Your task to perform on an android device: uninstall "Clock" Image 0: 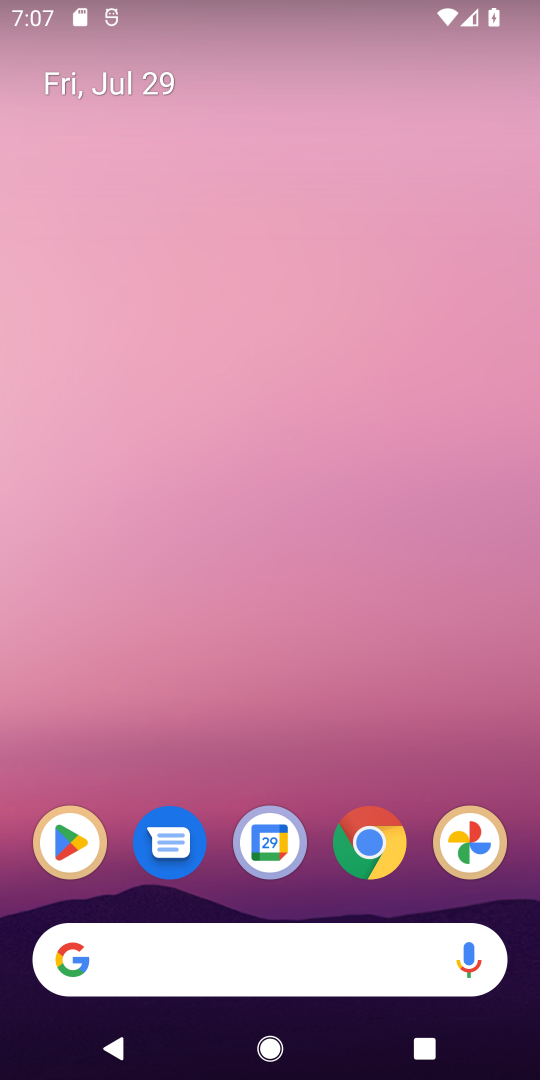
Step 0: drag from (291, 1012) to (286, 317)
Your task to perform on an android device: uninstall "Clock" Image 1: 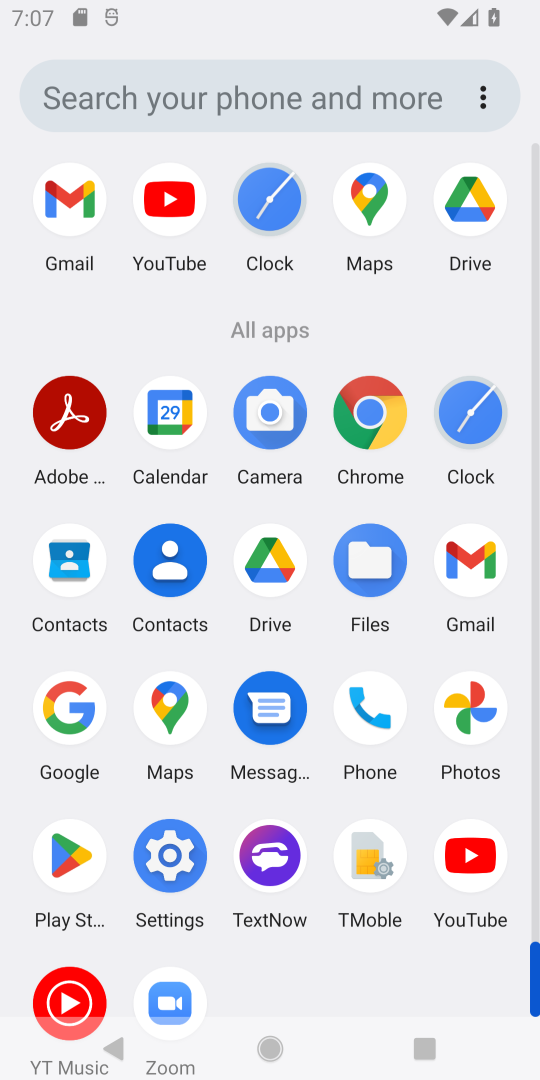
Step 1: drag from (343, 515) to (343, 358)
Your task to perform on an android device: uninstall "Clock" Image 2: 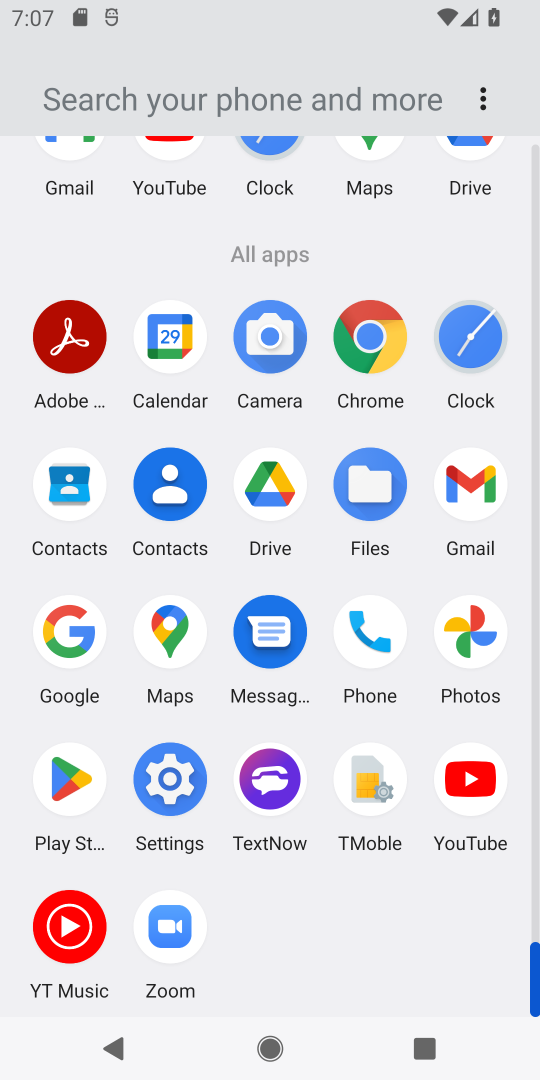
Step 2: drag from (294, 456) to (294, 897)
Your task to perform on an android device: uninstall "Clock" Image 3: 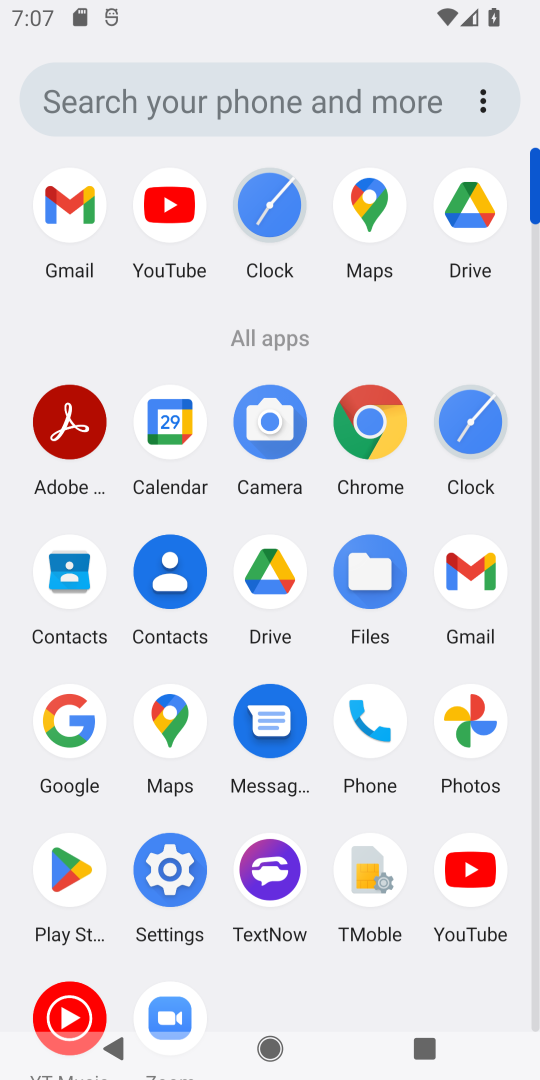
Step 3: drag from (320, 520) to (317, 851)
Your task to perform on an android device: uninstall "Clock" Image 4: 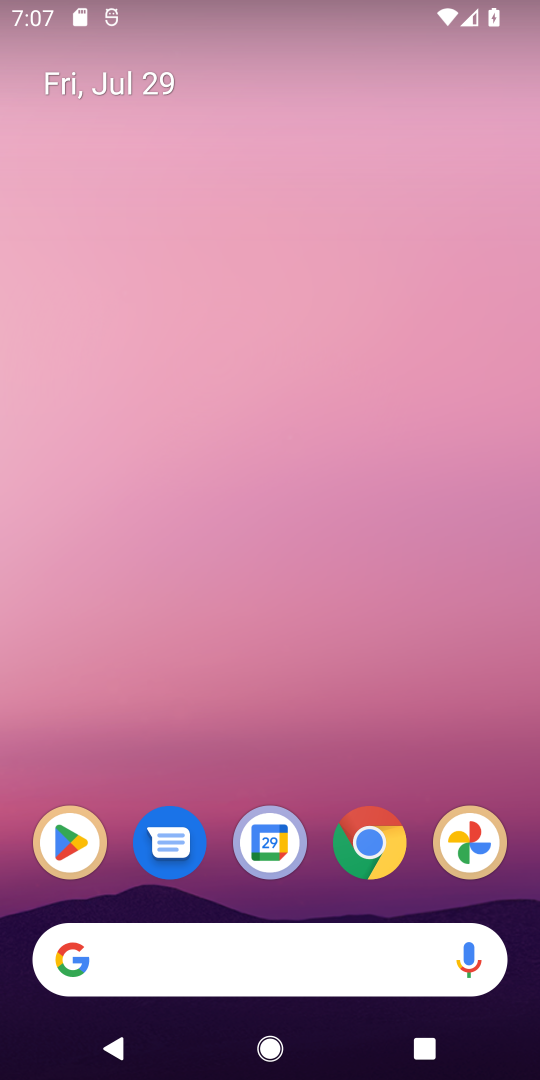
Step 4: drag from (302, 980) to (260, 375)
Your task to perform on an android device: uninstall "Clock" Image 5: 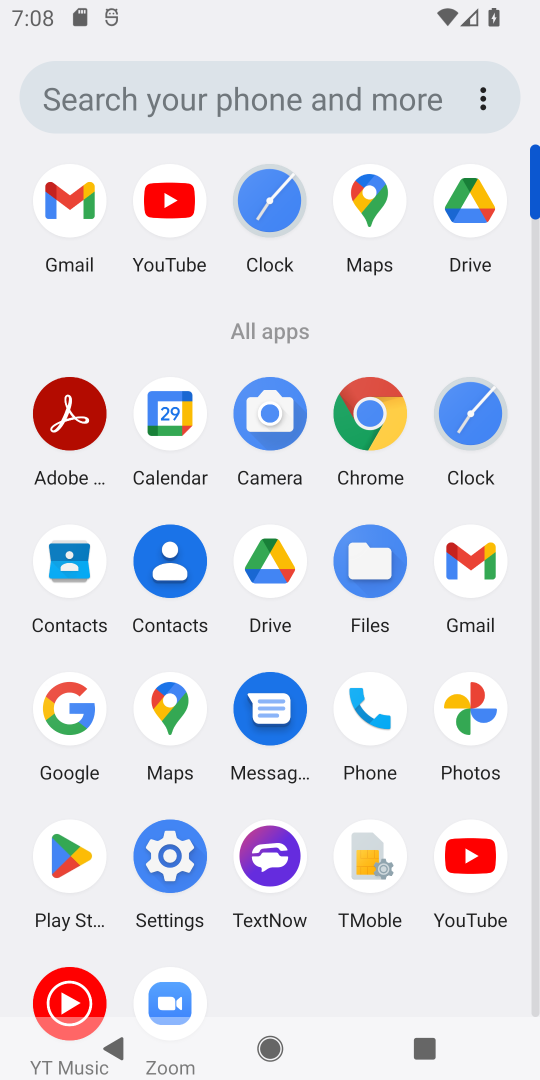
Step 5: click (73, 834)
Your task to perform on an android device: uninstall "Clock" Image 6: 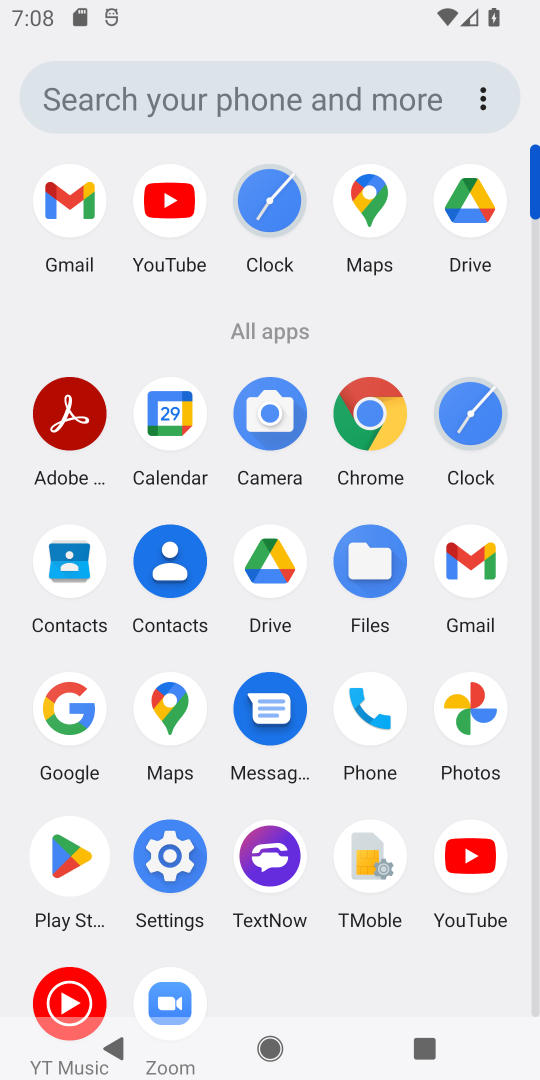
Step 6: click (72, 832)
Your task to perform on an android device: uninstall "Clock" Image 7: 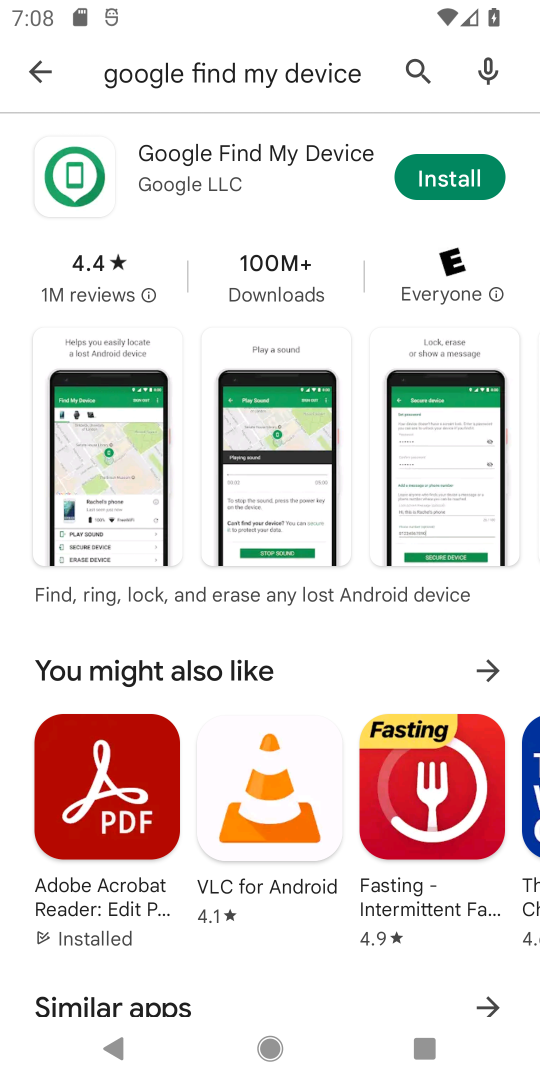
Step 7: click (49, 87)
Your task to perform on an android device: uninstall "Clock" Image 8: 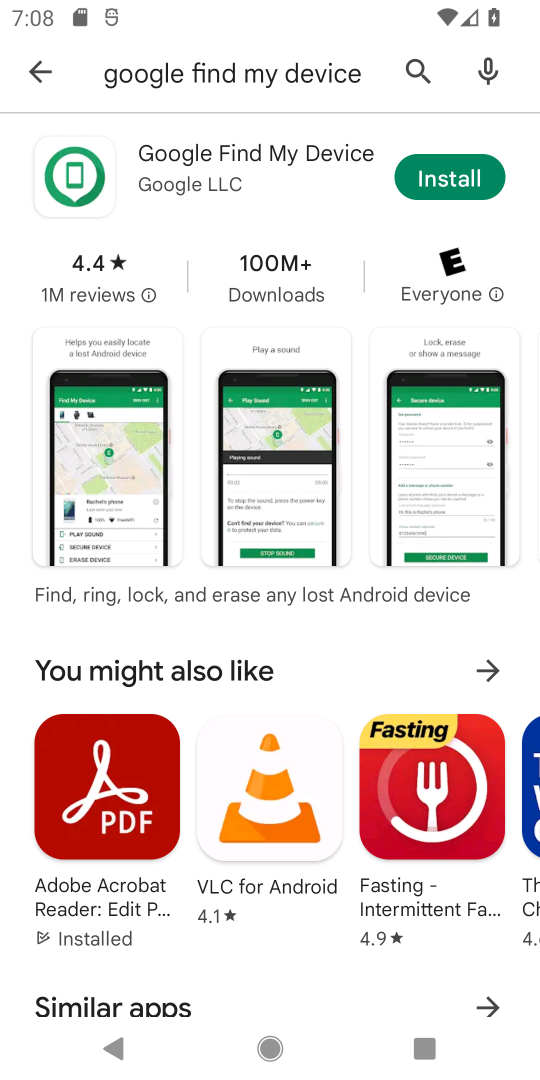
Step 8: click (28, 67)
Your task to perform on an android device: uninstall "Clock" Image 9: 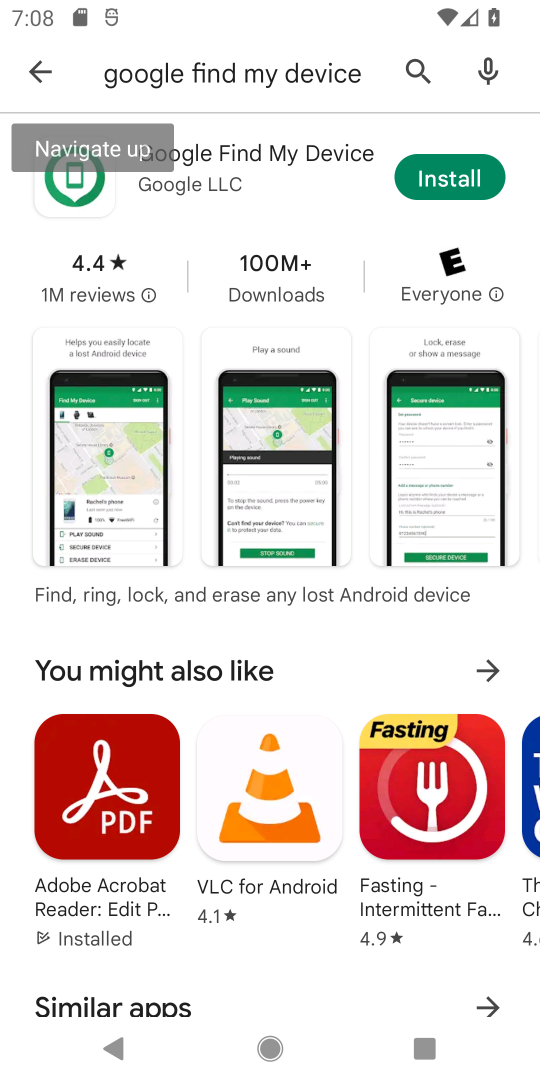
Step 9: click (45, 68)
Your task to perform on an android device: uninstall "Clock" Image 10: 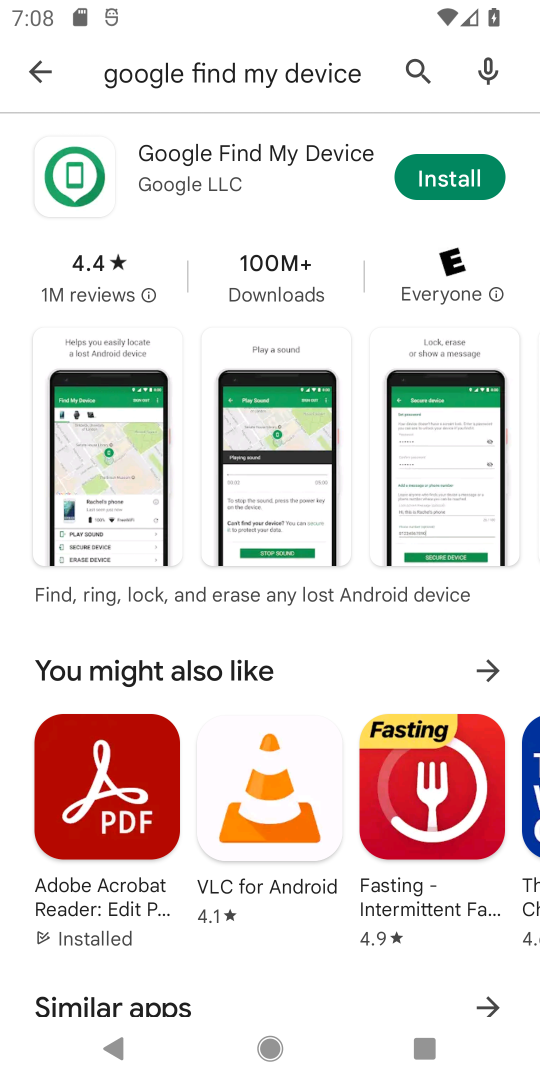
Step 10: press back button
Your task to perform on an android device: uninstall "Clock" Image 11: 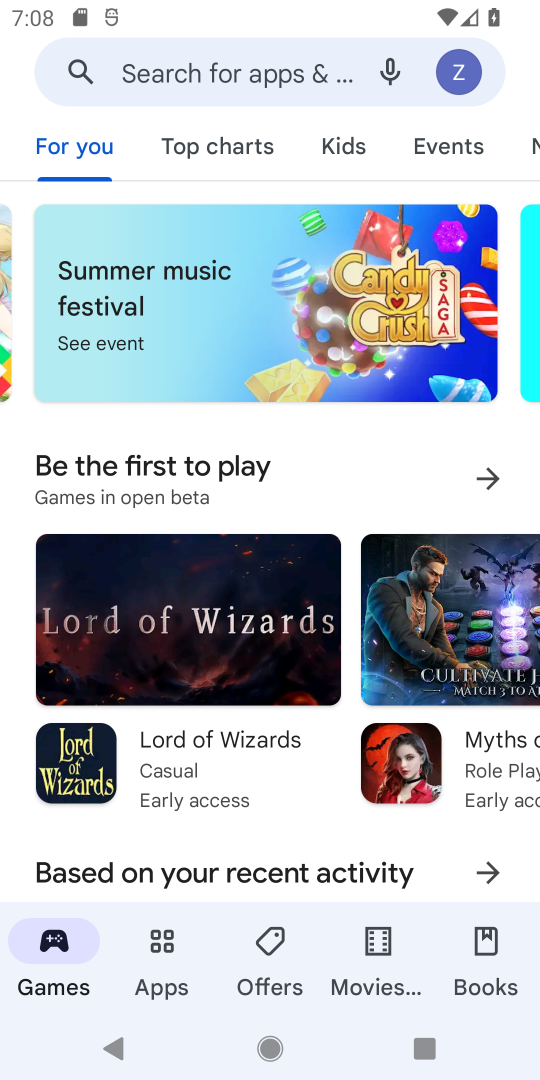
Step 11: click (156, 66)
Your task to perform on an android device: uninstall "Clock" Image 12: 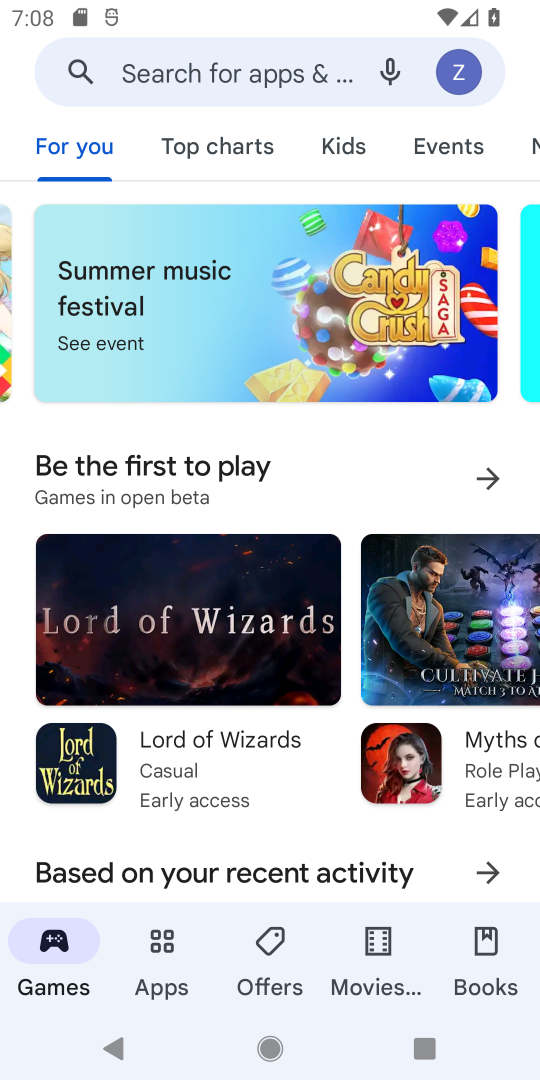
Step 12: click (157, 69)
Your task to perform on an android device: uninstall "Clock" Image 13: 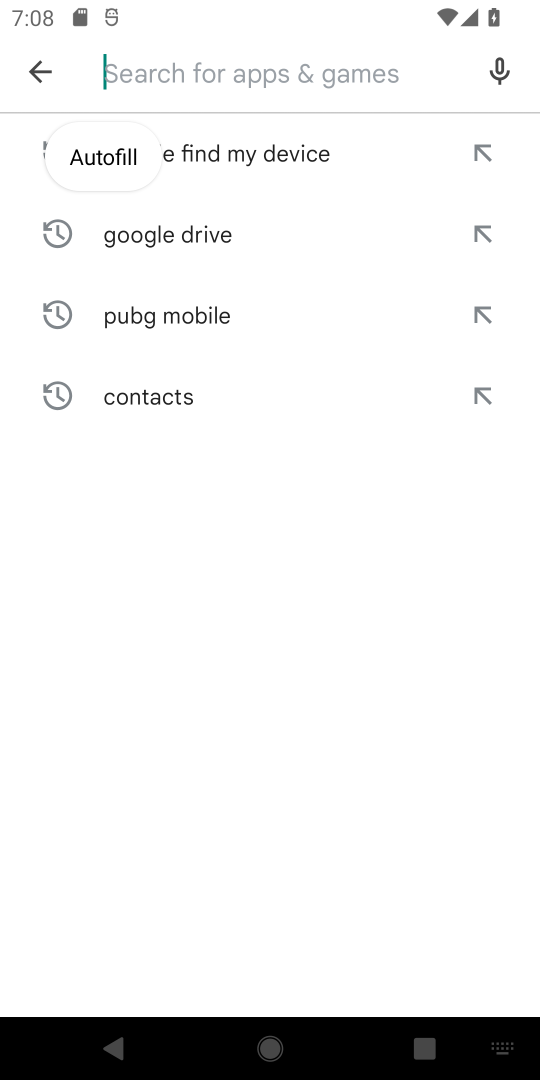
Step 13: type "clock"
Your task to perform on an android device: uninstall "Clock" Image 14: 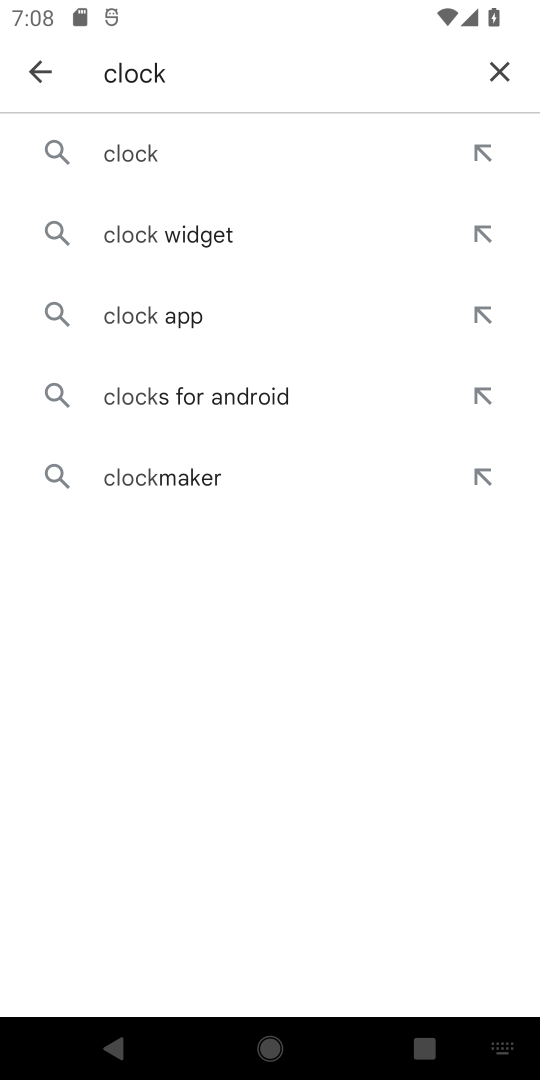
Step 14: click (481, 135)
Your task to perform on an android device: uninstall "Clock" Image 15: 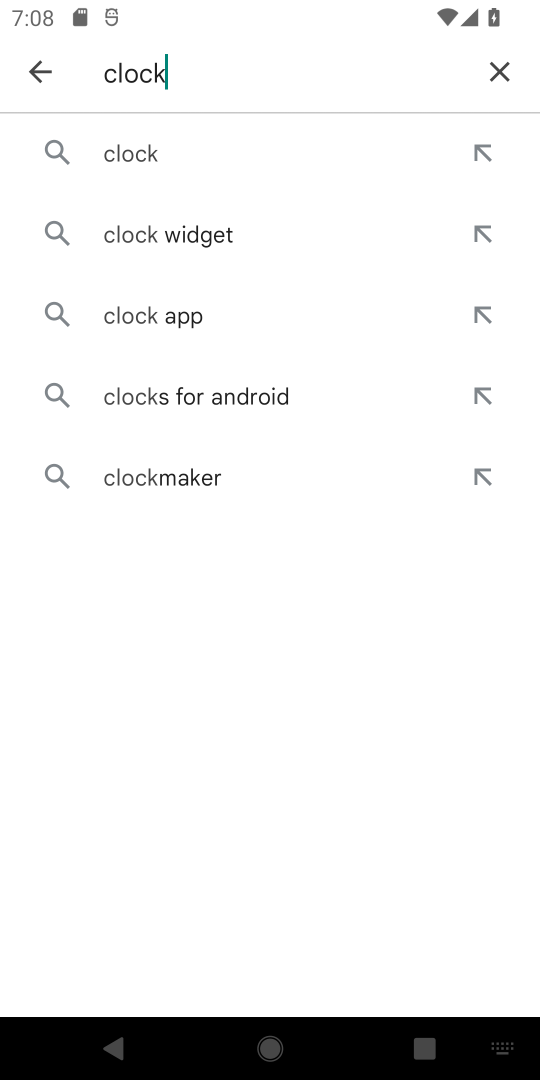
Step 15: click (474, 147)
Your task to perform on an android device: uninstall "Clock" Image 16: 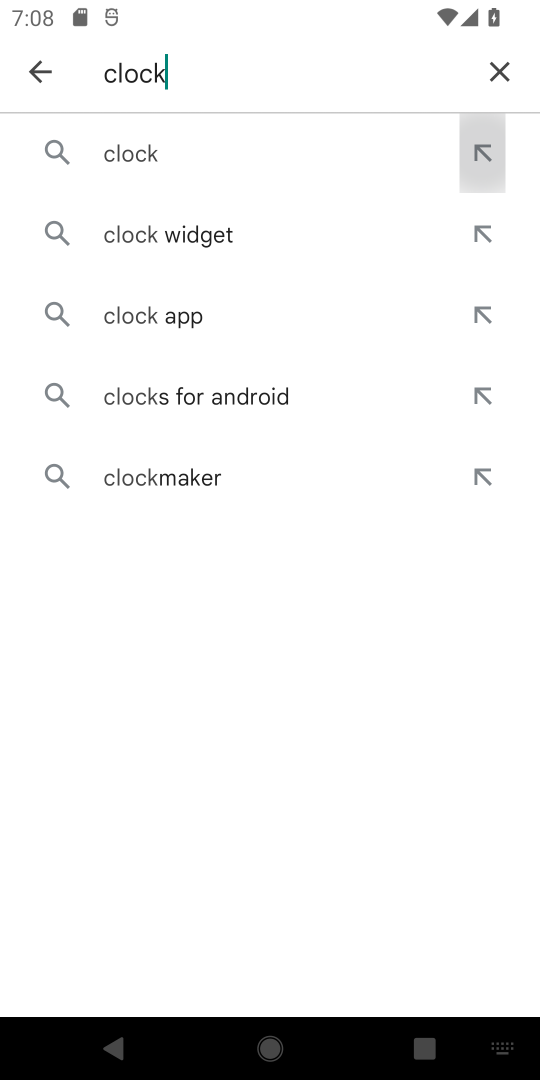
Step 16: click (477, 149)
Your task to perform on an android device: uninstall "Clock" Image 17: 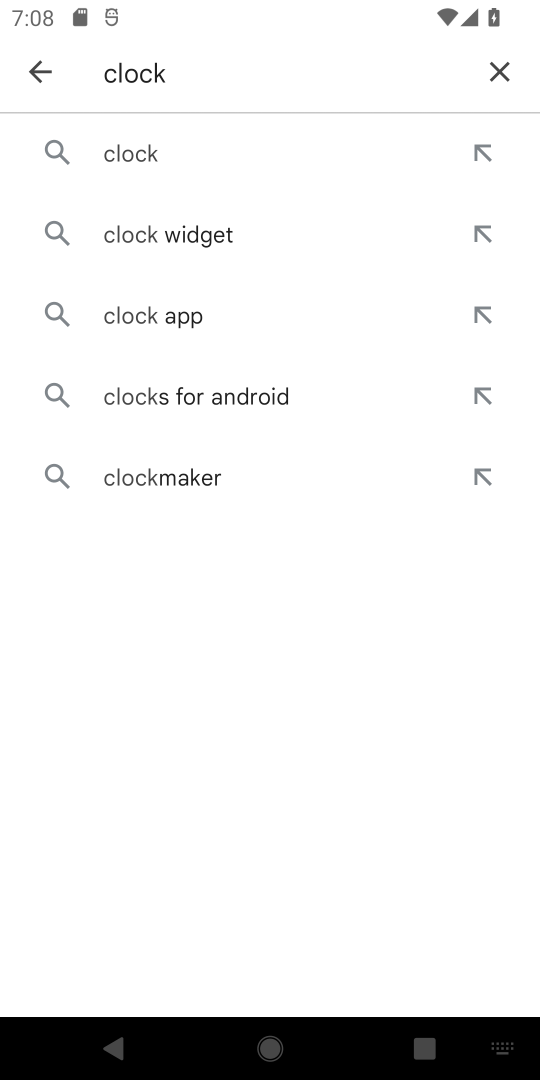
Step 17: click (477, 149)
Your task to perform on an android device: uninstall "Clock" Image 18: 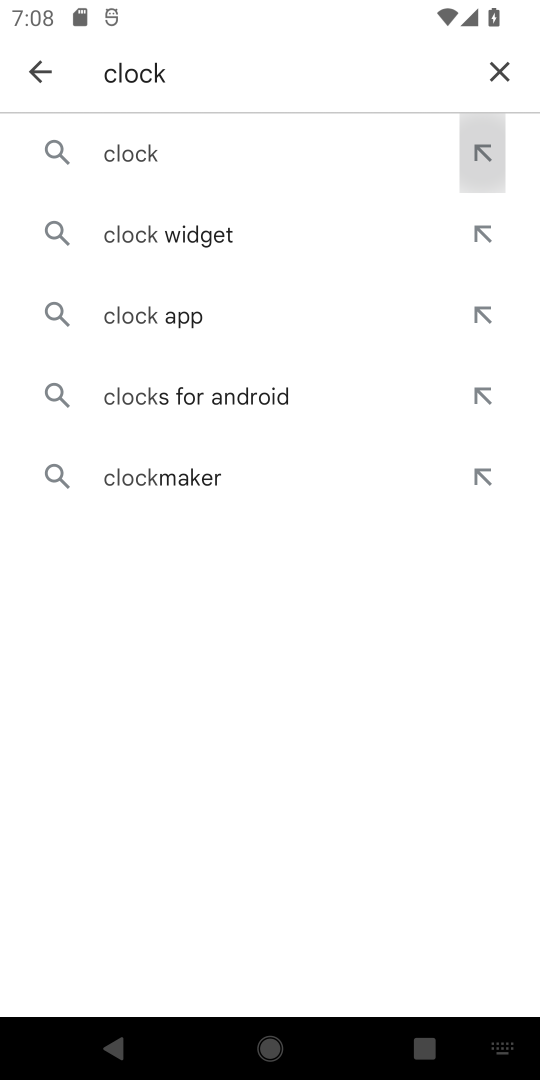
Step 18: click (477, 149)
Your task to perform on an android device: uninstall "Clock" Image 19: 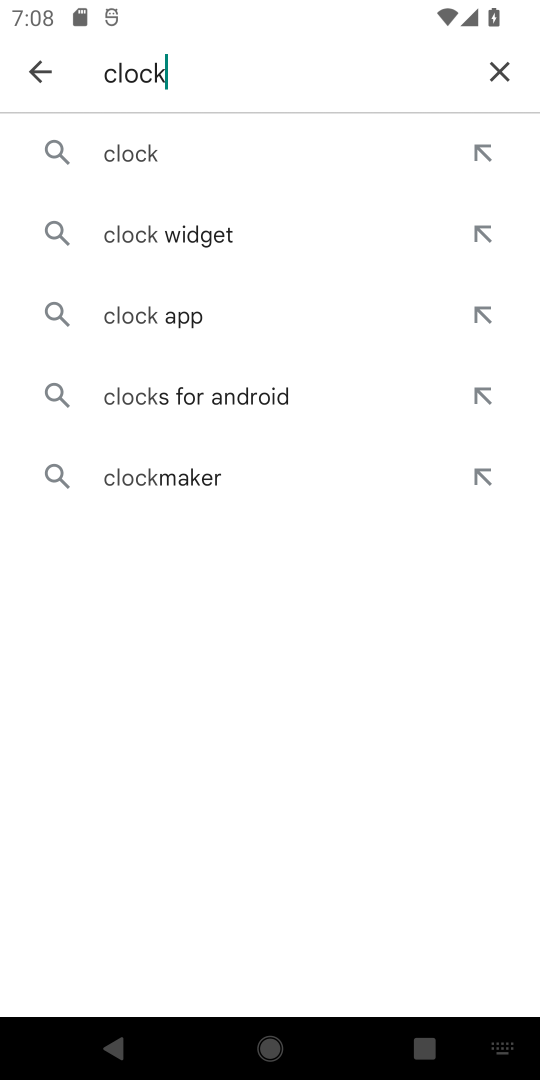
Step 19: click (104, 159)
Your task to perform on an android device: uninstall "Clock" Image 20: 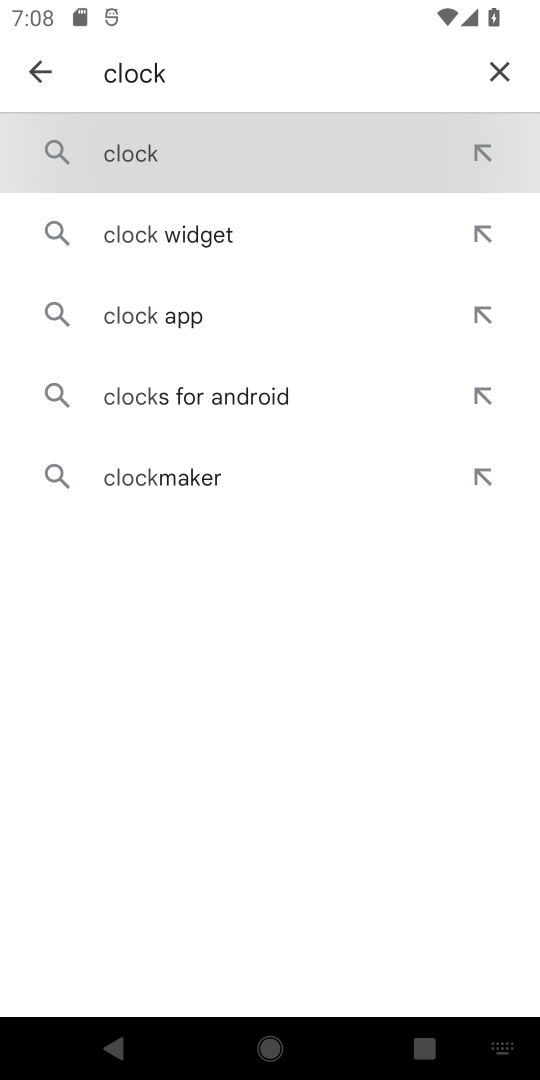
Step 20: click (104, 159)
Your task to perform on an android device: uninstall "Clock" Image 21: 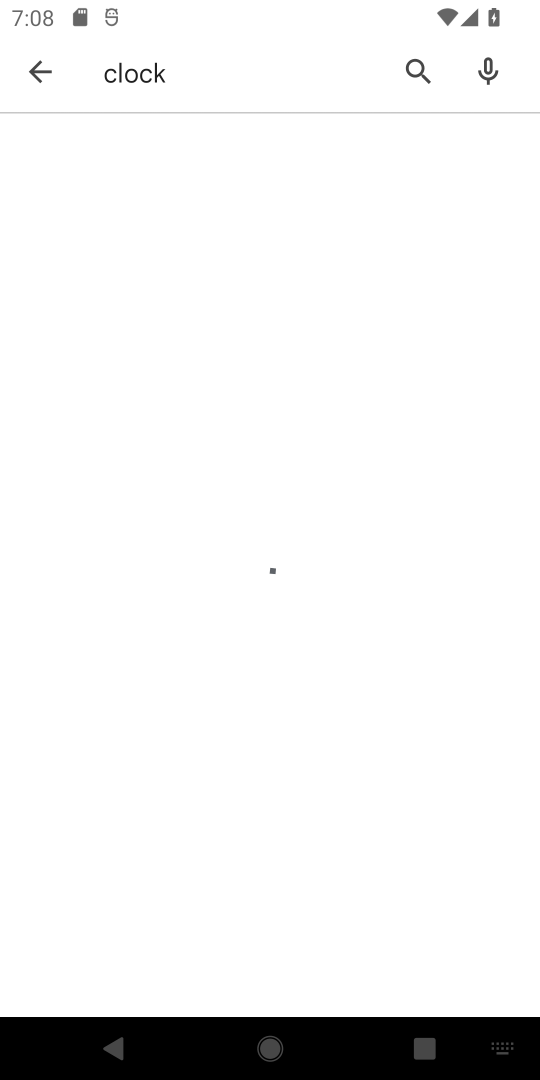
Step 21: click (104, 159)
Your task to perform on an android device: uninstall "Clock" Image 22: 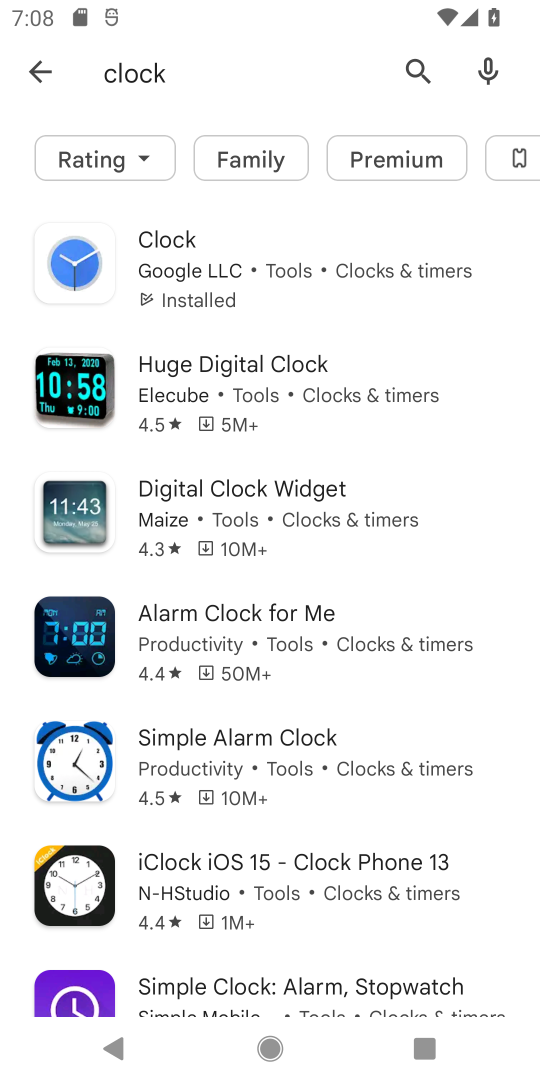
Step 22: task complete